Your task to perform on an android device: find snoozed emails in the gmail app Image 0: 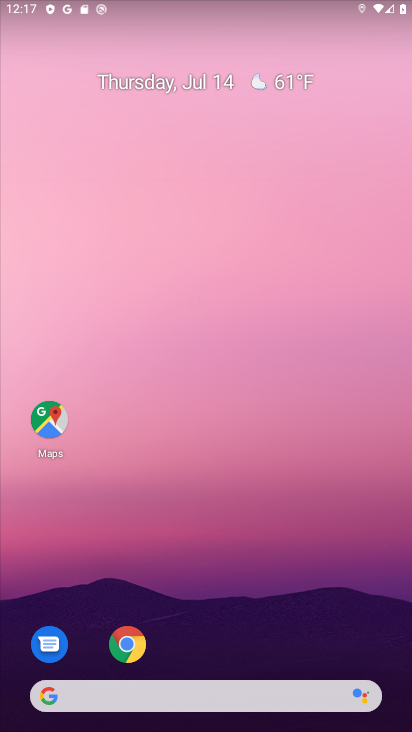
Step 0: drag from (225, 658) to (281, 166)
Your task to perform on an android device: find snoozed emails in the gmail app Image 1: 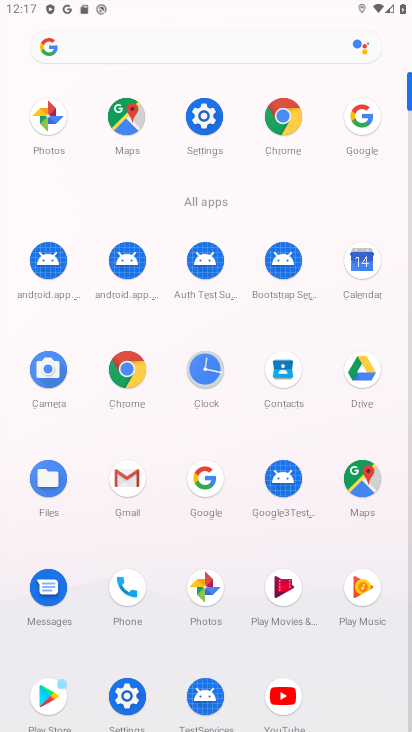
Step 1: click (120, 478)
Your task to perform on an android device: find snoozed emails in the gmail app Image 2: 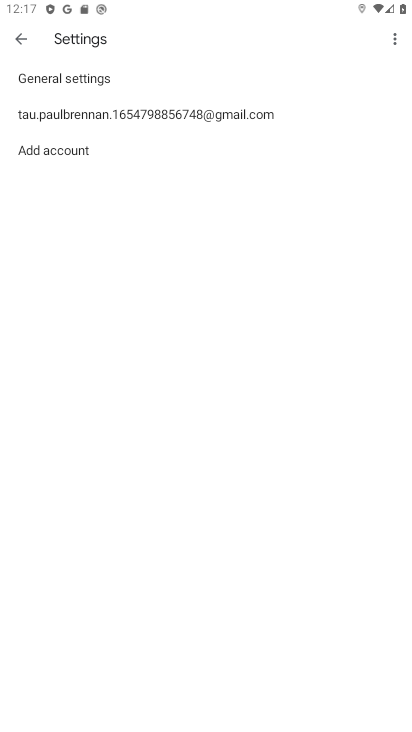
Step 2: press back button
Your task to perform on an android device: find snoozed emails in the gmail app Image 3: 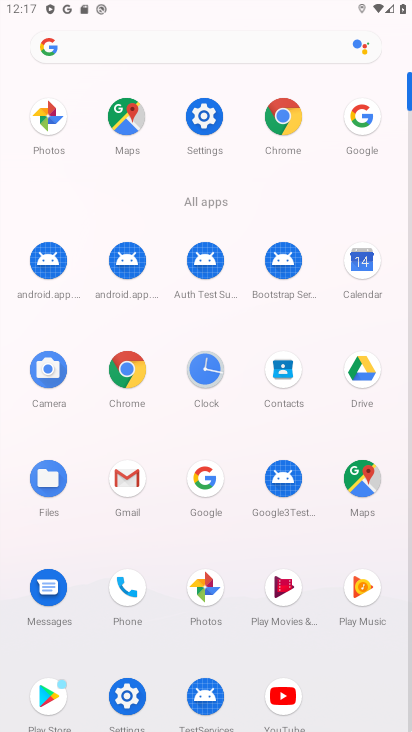
Step 3: click (118, 486)
Your task to perform on an android device: find snoozed emails in the gmail app Image 4: 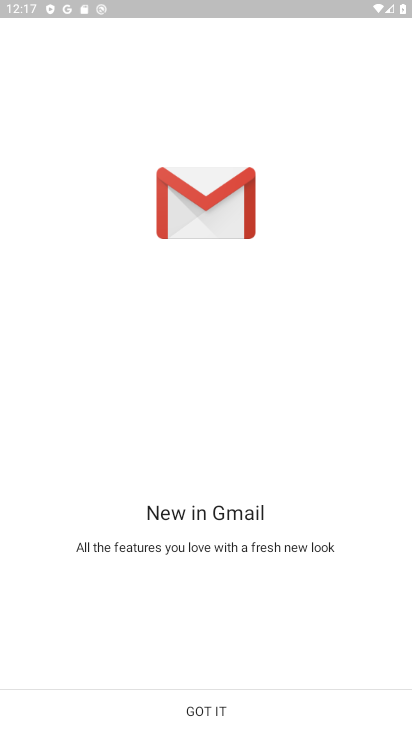
Step 4: click (204, 713)
Your task to perform on an android device: find snoozed emails in the gmail app Image 5: 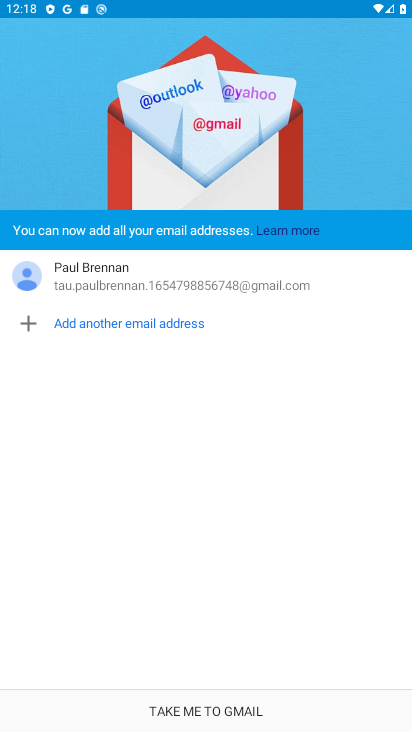
Step 5: click (205, 719)
Your task to perform on an android device: find snoozed emails in the gmail app Image 6: 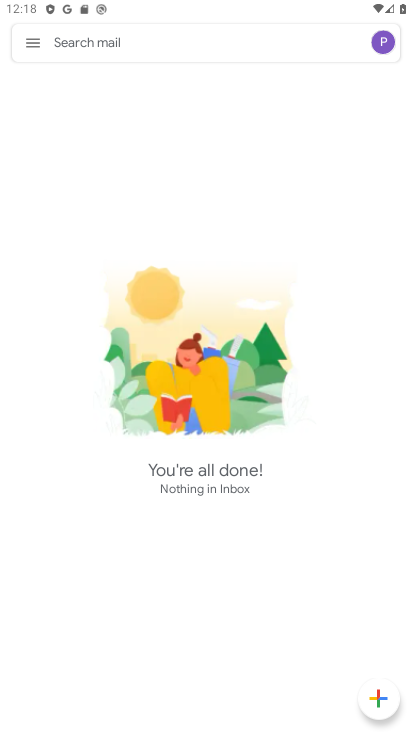
Step 6: click (30, 41)
Your task to perform on an android device: find snoozed emails in the gmail app Image 7: 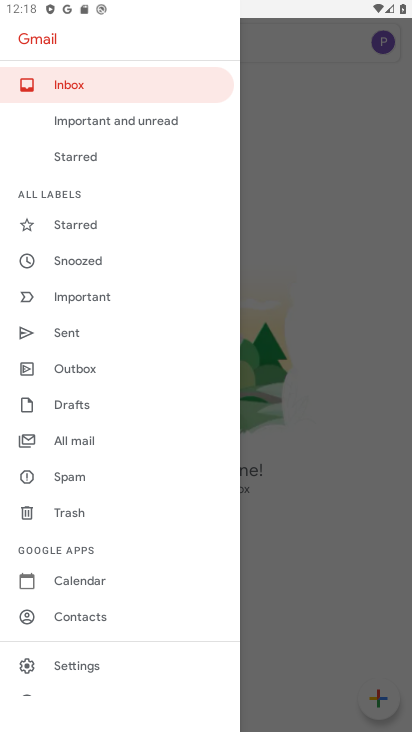
Step 7: click (125, 263)
Your task to perform on an android device: find snoozed emails in the gmail app Image 8: 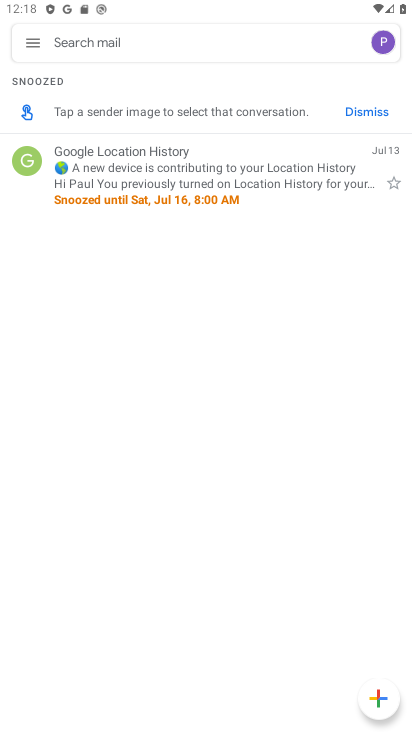
Step 8: task complete